Your task to perform on an android device: Go to notification settings Image 0: 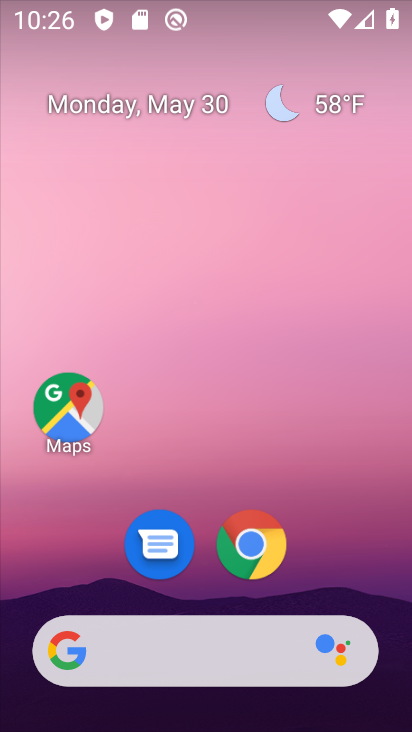
Step 0: drag from (362, 580) to (296, 21)
Your task to perform on an android device: Go to notification settings Image 1: 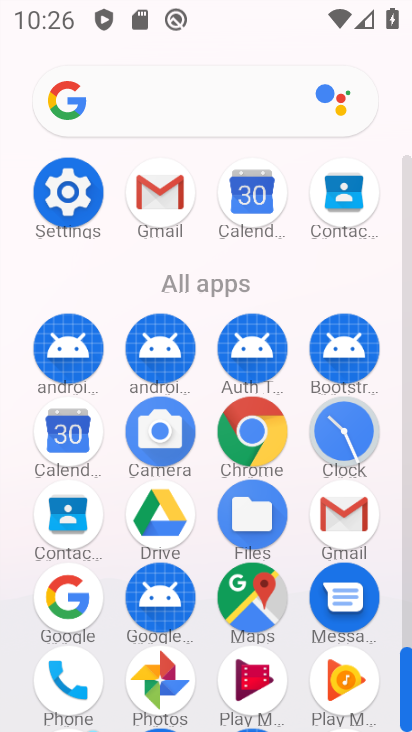
Step 1: click (39, 212)
Your task to perform on an android device: Go to notification settings Image 2: 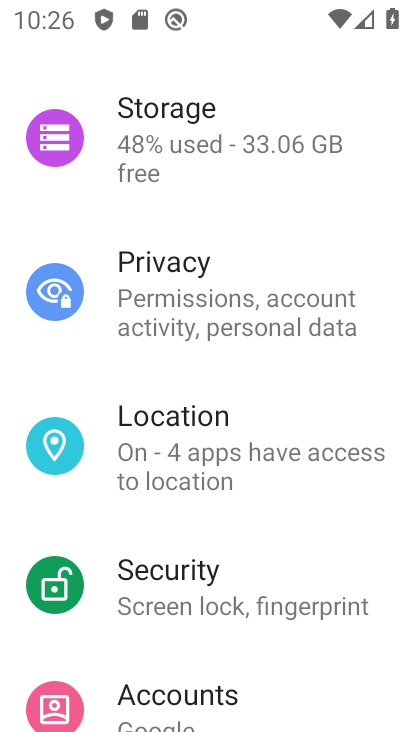
Step 2: drag from (233, 585) to (241, 160)
Your task to perform on an android device: Go to notification settings Image 3: 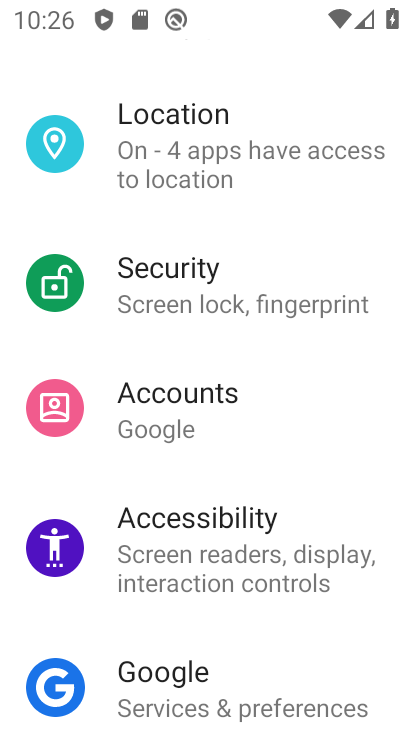
Step 3: drag from (237, 602) to (248, 205)
Your task to perform on an android device: Go to notification settings Image 4: 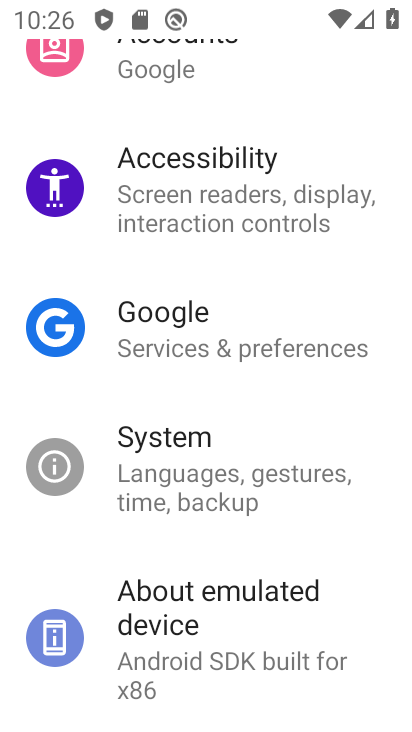
Step 4: drag from (239, 213) to (353, 688)
Your task to perform on an android device: Go to notification settings Image 5: 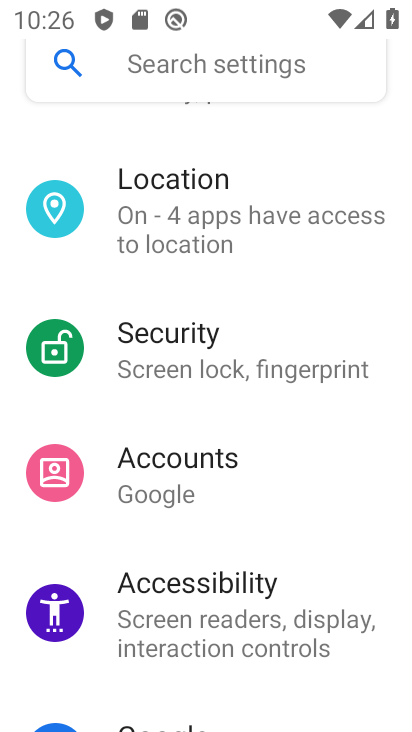
Step 5: drag from (234, 296) to (371, 609)
Your task to perform on an android device: Go to notification settings Image 6: 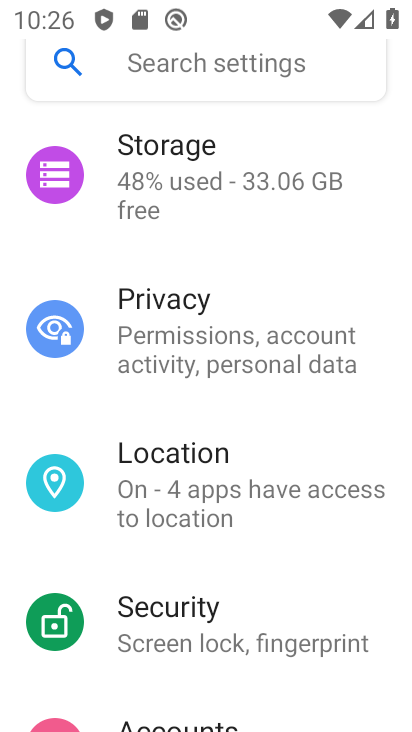
Step 6: drag from (225, 281) to (335, 605)
Your task to perform on an android device: Go to notification settings Image 7: 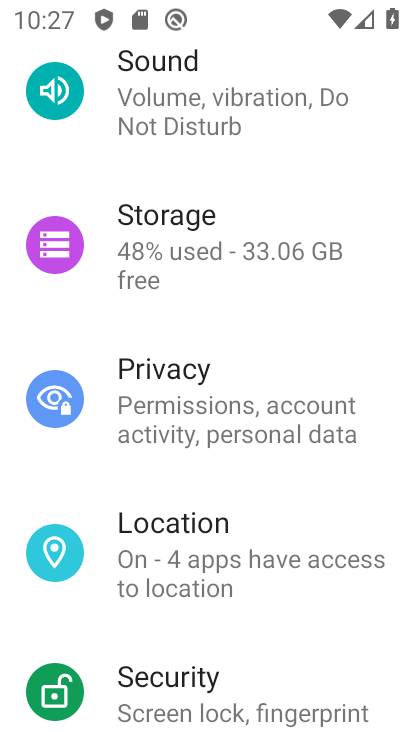
Step 7: drag from (291, 177) to (336, 694)
Your task to perform on an android device: Go to notification settings Image 8: 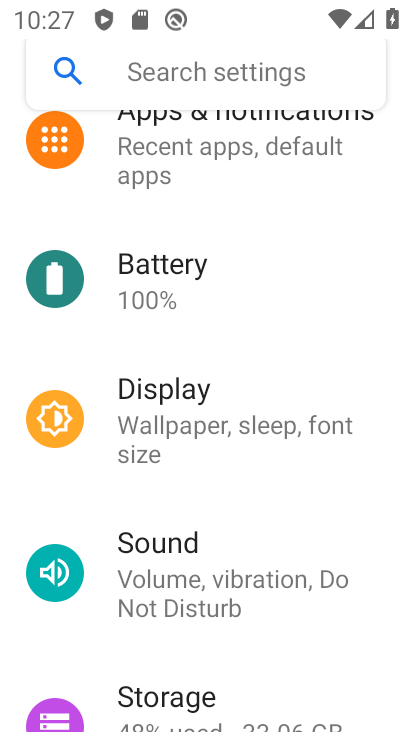
Step 8: click (265, 168)
Your task to perform on an android device: Go to notification settings Image 9: 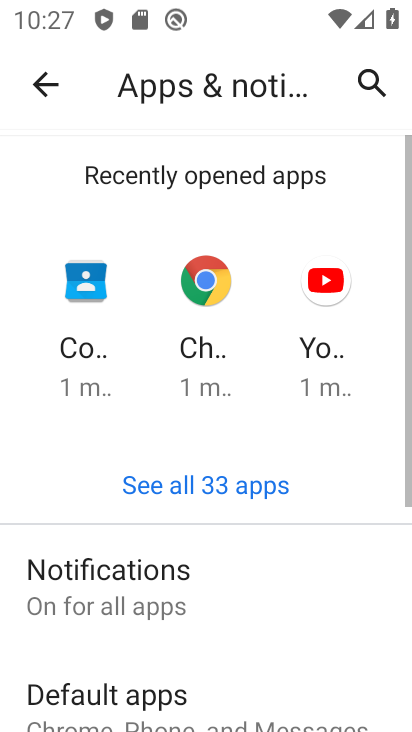
Step 9: drag from (261, 556) to (277, 78)
Your task to perform on an android device: Go to notification settings Image 10: 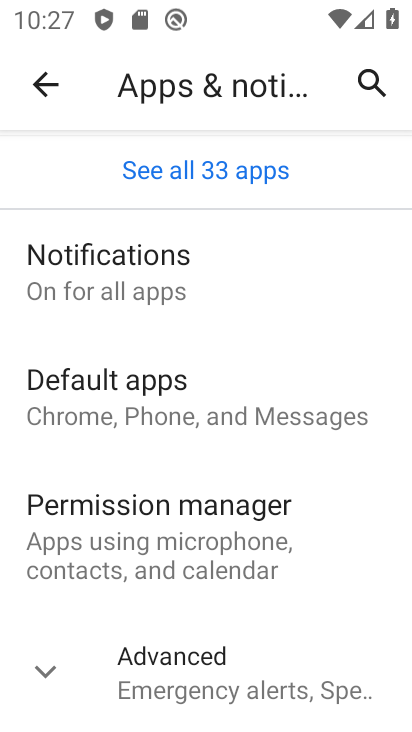
Step 10: click (222, 282)
Your task to perform on an android device: Go to notification settings Image 11: 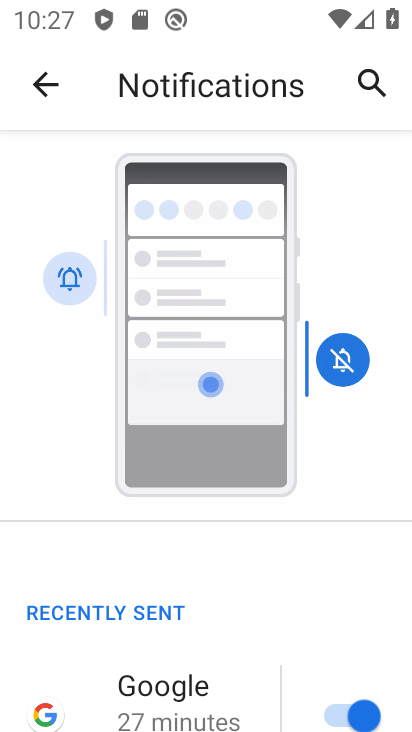
Step 11: task complete